Your task to perform on an android device: toggle translation in the chrome app Image 0: 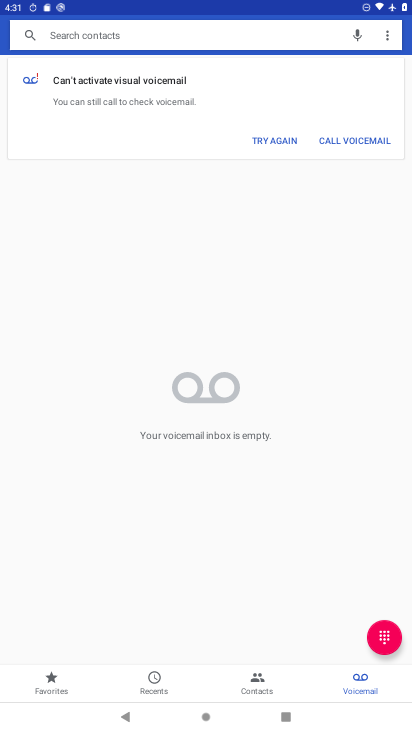
Step 0: press home button
Your task to perform on an android device: toggle translation in the chrome app Image 1: 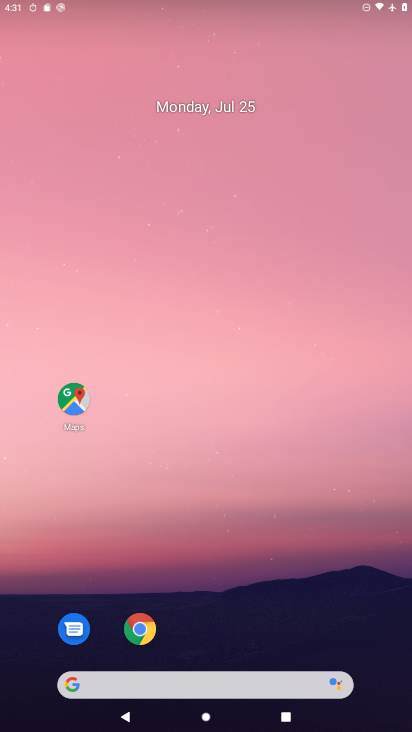
Step 1: drag from (280, 645) to (371, 5)
Your task to perform on an android device: toggle translation in the chrome app Image 2: 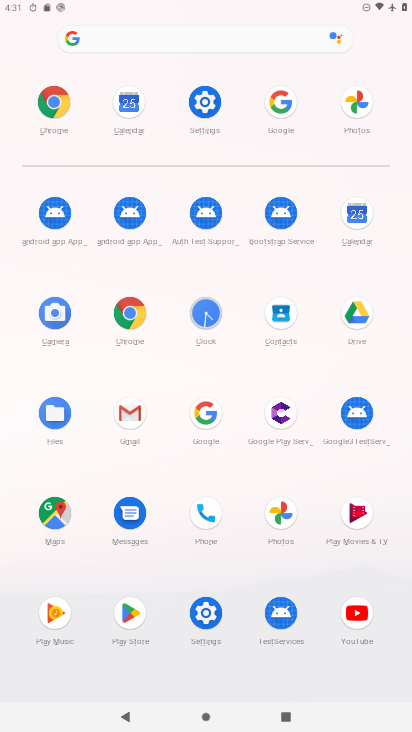
Step 2: click (368, 205)
Your task to perform on an android device: toggle translation in the chrome app Image 3: 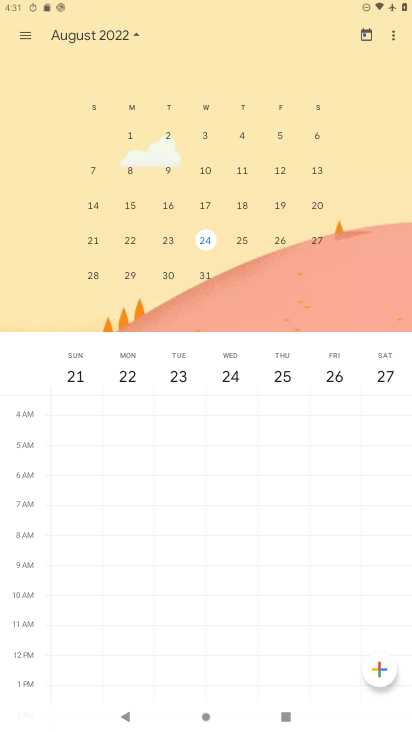
Step 3: click (291, 274)
Your task to perform on an android device: toggle translation in the chrome app Image 4: 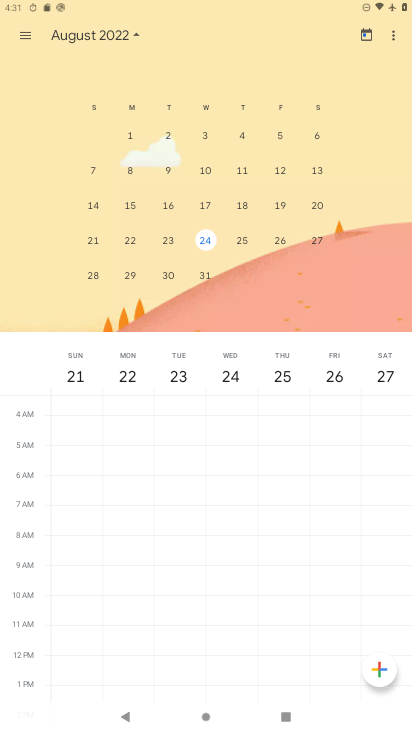
Step 4: press home button
Your task to perform on an android device: toggle translation in the chrome app Image 5: 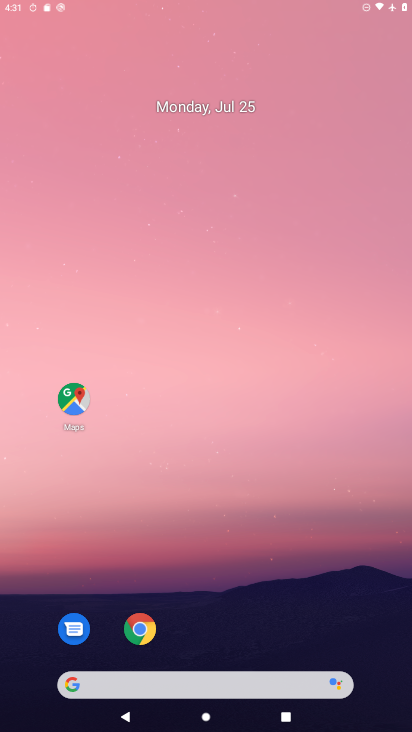
Step 5: drag from (233, 517) to (321, 3)
Your task to perform on an android device: toggle translation in the chrome app Image 6: 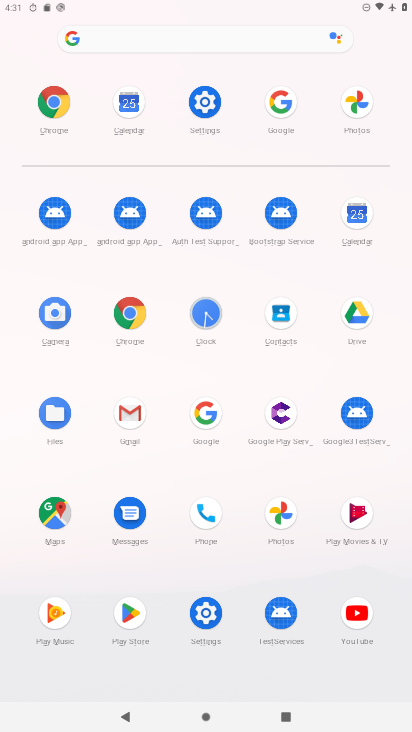
Step 6: click (118, 303)
Your task to perform on an android device: toggle translation in the chrome app Image 7: 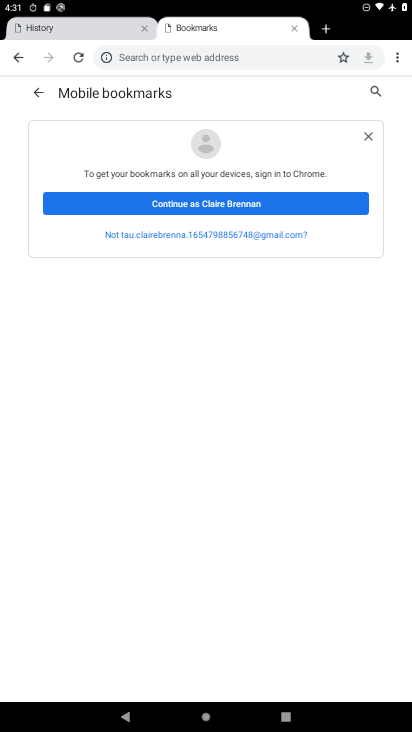
Step 7: drag from (397, 58) to (284, 257)
Your task to perform on an android device: toggle translation in the chrome app Image 8: 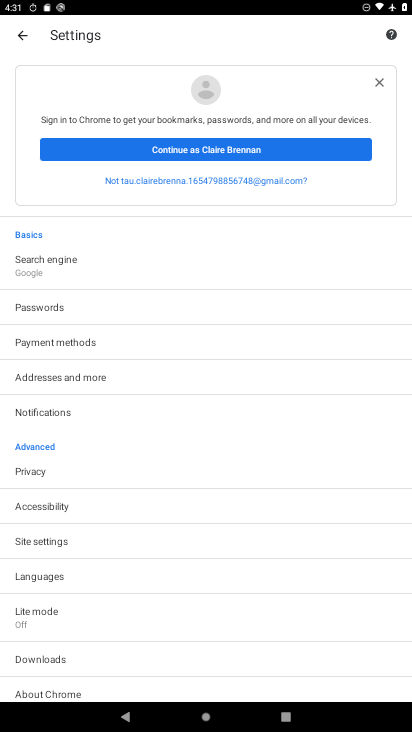
Step 8: click (92, 583)
Your task to perform on an android device: toggle translation in the chrome app Image 9: 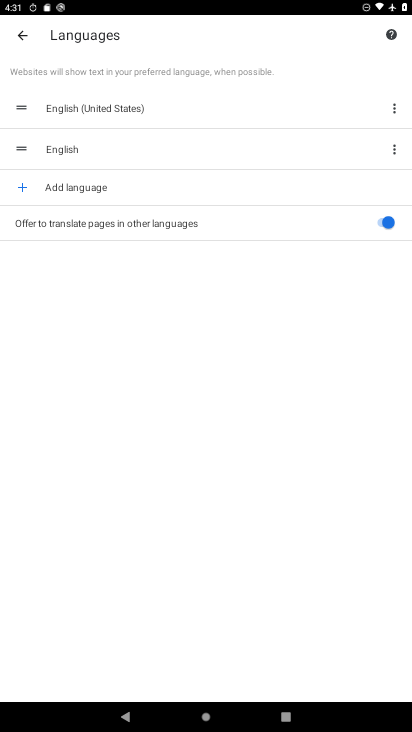
Step 9: click (385, 218)
Your task to perform on an android device: toggle translation in the chrome app Image 10: 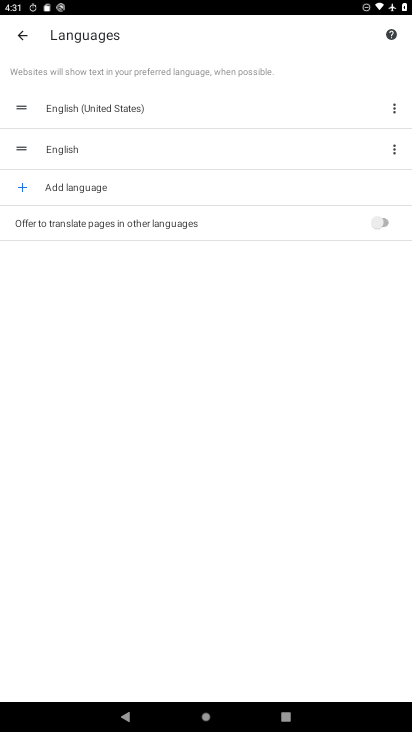
Step 10: task complete